Your task to perform on an android device: turn on showing notifications on the lock screen Image 0: 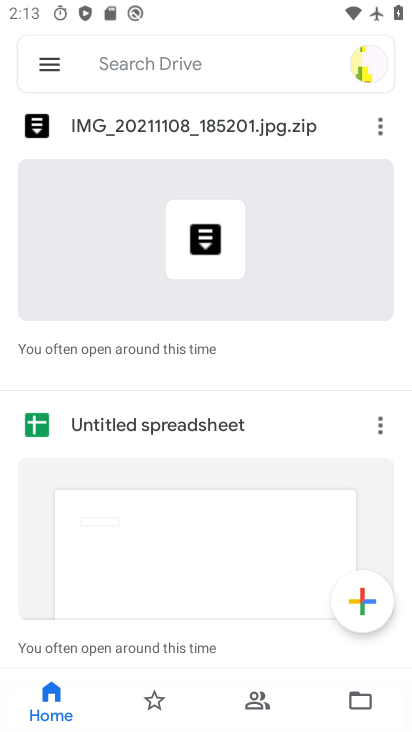
Step 0: press home button
Your task to perform on an android device: turn on showing notifications on the lock screen Image 1: 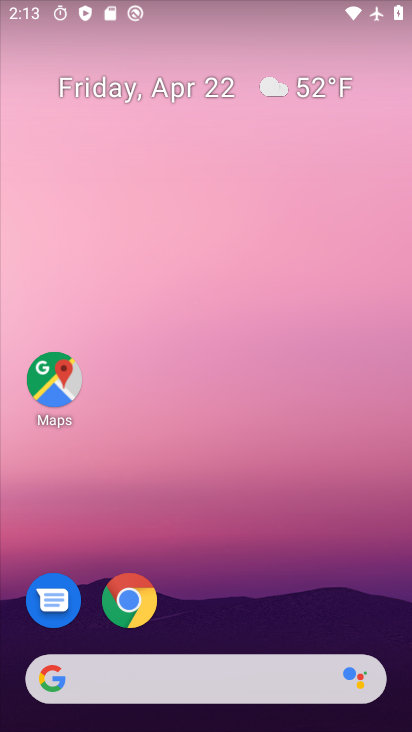
Step 1: drag from (215, 708) to (187, 213)
Your task to perform on an android device: turn on showing notifications on the lock screen Image 2: 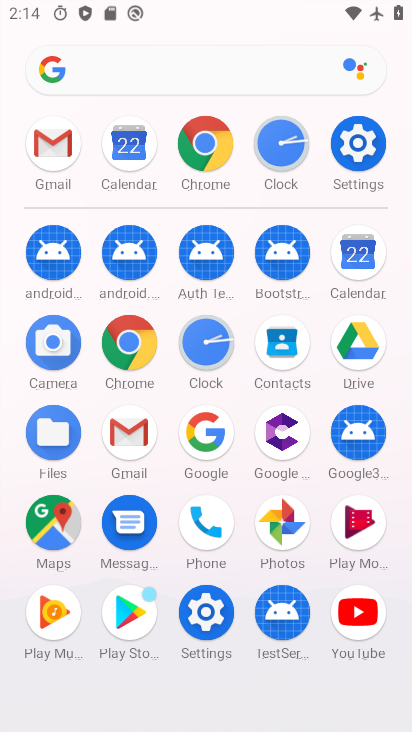
Step 2: click (364, 147)
Your task to perform on an android device: turn on showing notifications on the lock screen Image 3: 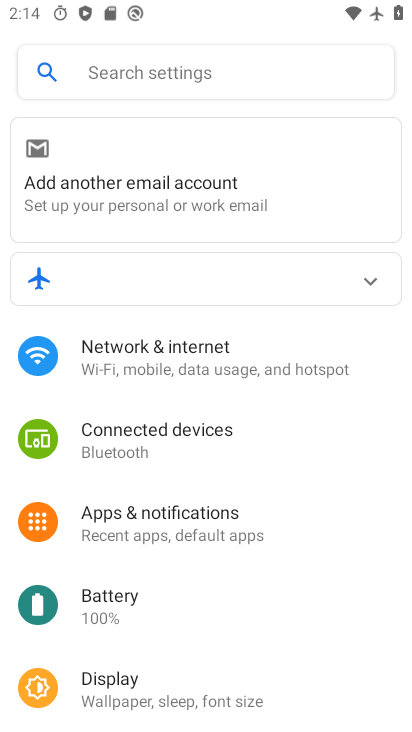
Step 3: click (180, 522)
Your task to perform on an android device: turn on showing notifications on the lock screen Image 4: 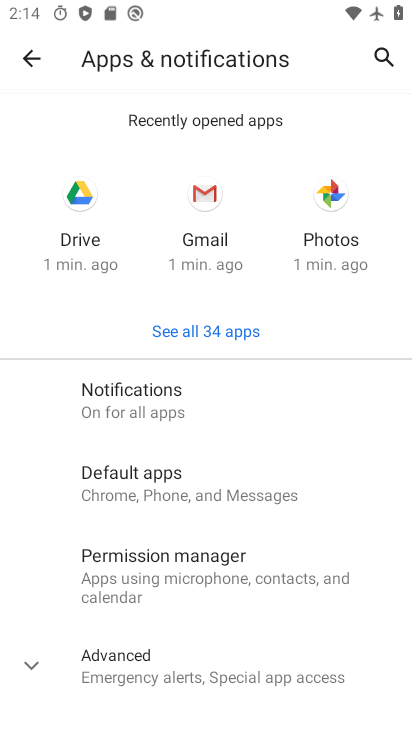
Step 4: click (141, 409)
Your task to perform on an android device: turn on showing notifications on the lock screen Image 5: 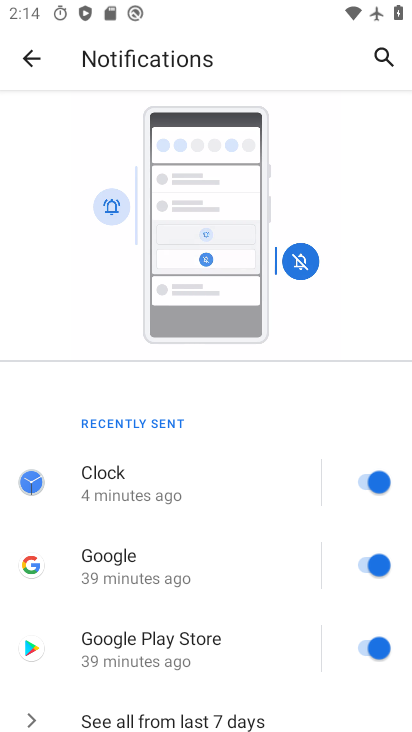
Step 5: drag from (213, 687) to (204, 366)
Your task to perform on an android device: turn on showing notifications on the lock screen Image 6: 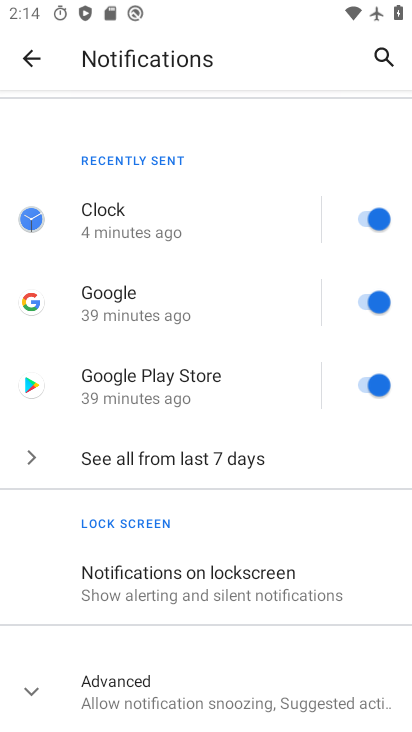
Step 6: click (234, 585)
Your task to perform on an android device: turn on showing notifications on the lock screen Image 7: 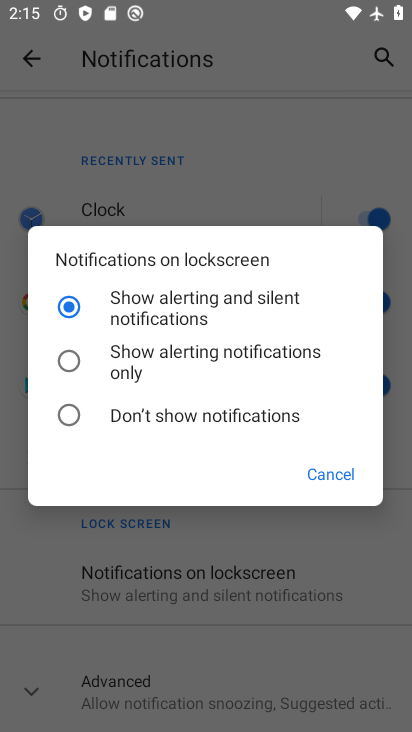
Step 7: click (343, 467)
Your task to perform on an android device: turn on showing notifications on the lock screen Image 8: 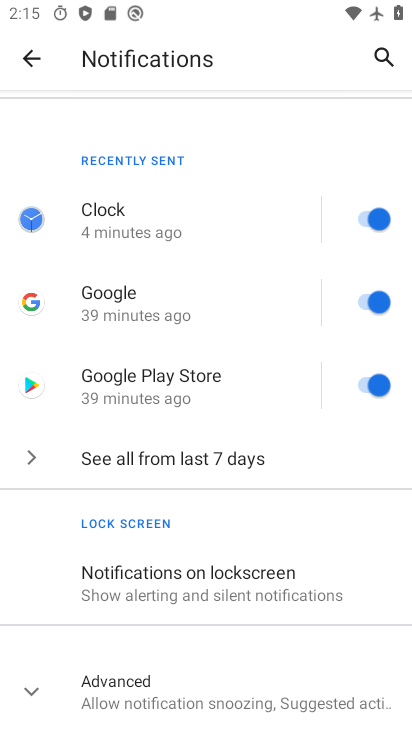
Step 8: task complete